Your task to perform on an android device: Open CNN.com Image 0: 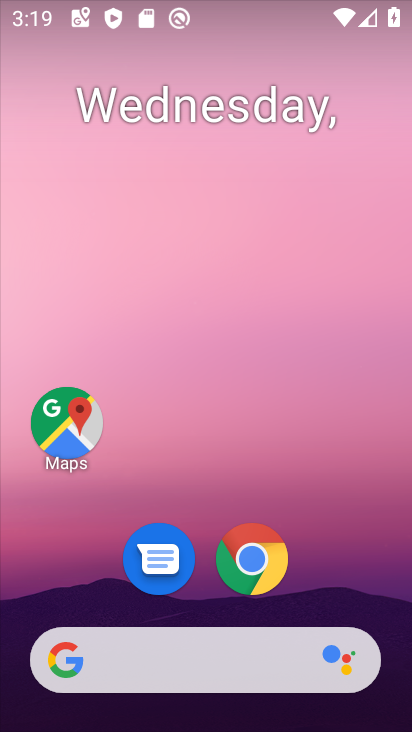
Step 0: click (158, 653)
Your task to perform on an android device: Open CNN.com Image 1: 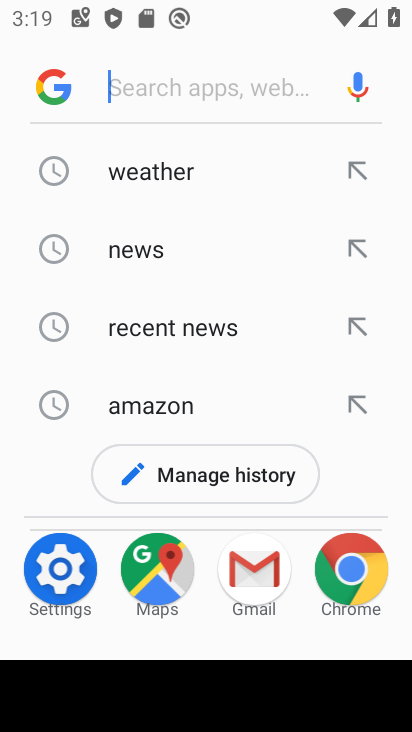
Step 1: type "CNN.com"
Your task to perform on an android device: Open CNN.com Image 2: 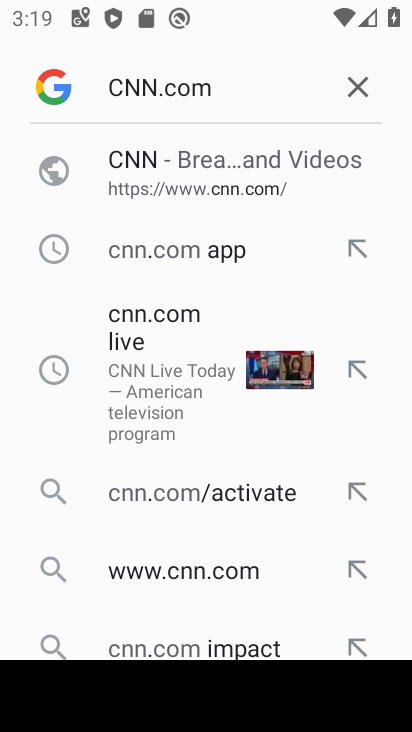
Step 2: click (239, 178)
Your task to perform on an android device: Open CNN.com Image 3: 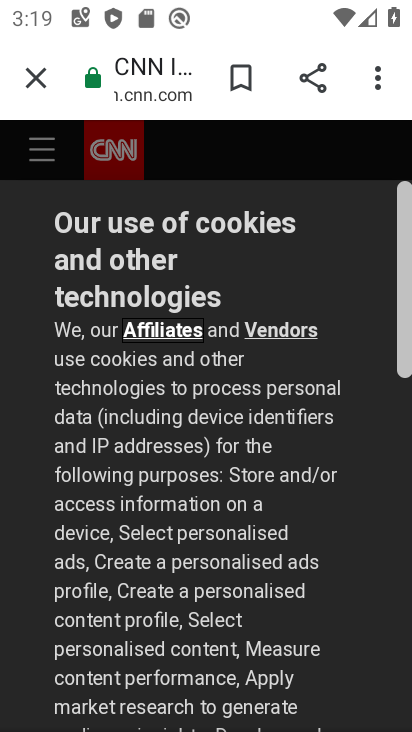
Step 3: drag from (246, 573) to (317, 275)
Your task to perform on an android device: Open CNN.com Image 4: 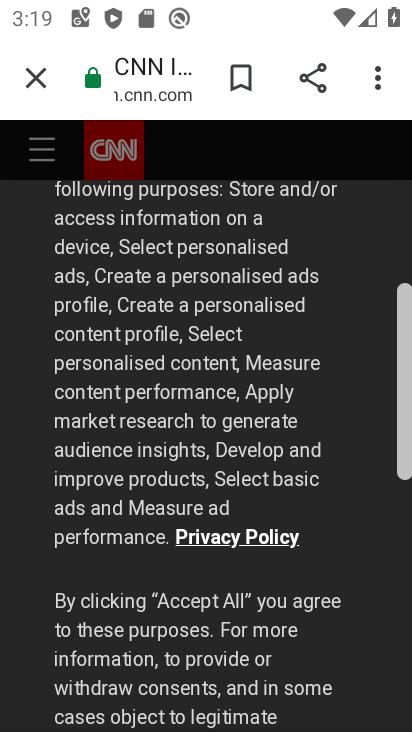
Step 4: drag from (175, 594) to (300, 232)
Your task to perform on an android device: Open CNN.com Image 5: 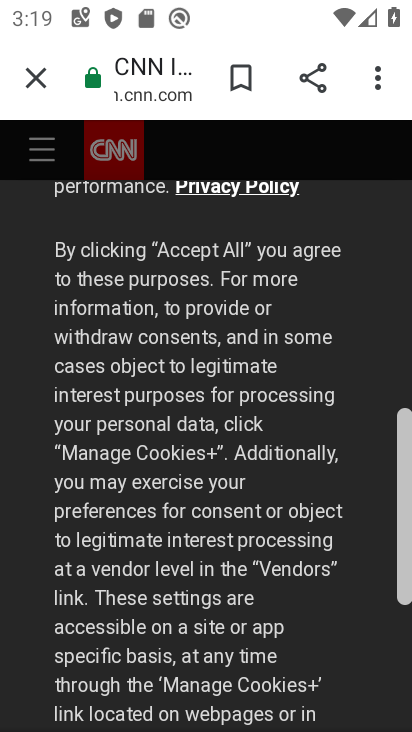
Step 5: drag from (163, 490) to (252, 276)
Your task to perform on an android device: Open CNN.com Image 6: 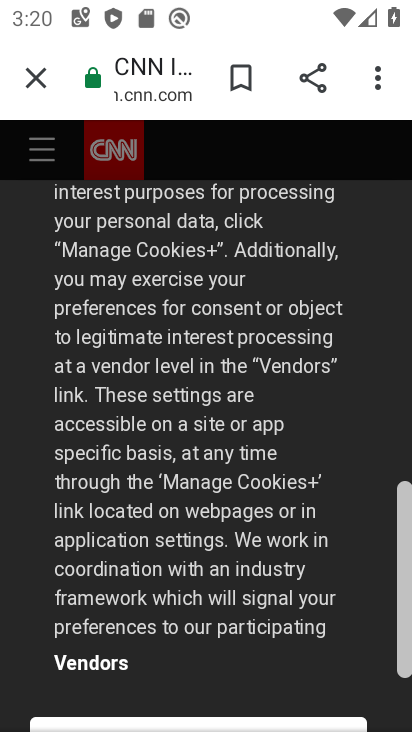
Step 6: drag from (159, 565) to (278, 310)
Your task to perform on an android device: Open CNN.com Image 7: 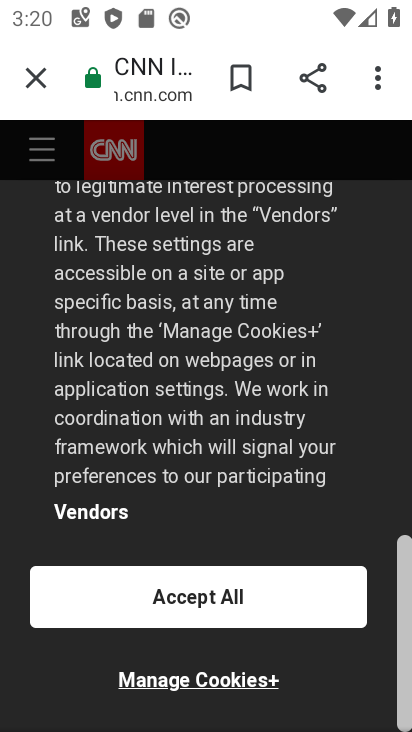
Step 7: click (212, 616)
Your task to perform on an android device: Open CNN.com Image 8: 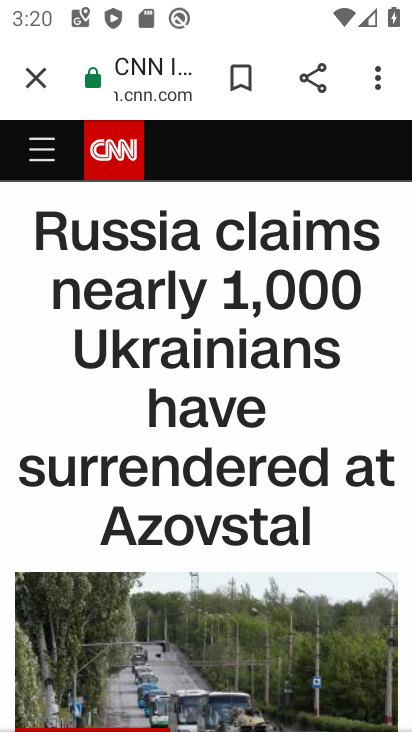
Step 8: task complete